Your task to perform on an android device: change text size in settings app Image 0: 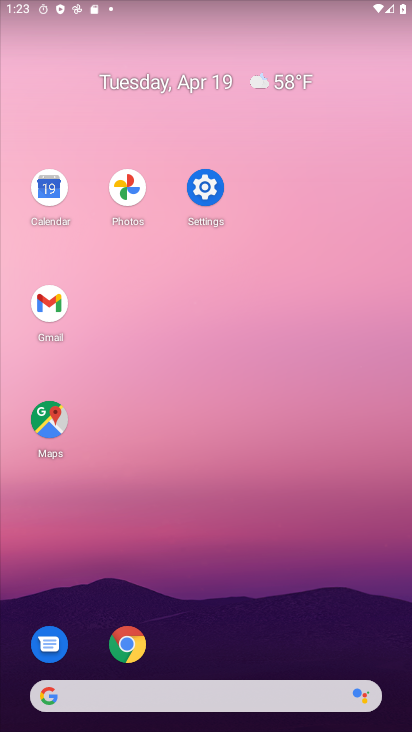
Step 0: click (200, 190)
Your task to perform on an android device: change text size in settings app Image 1: 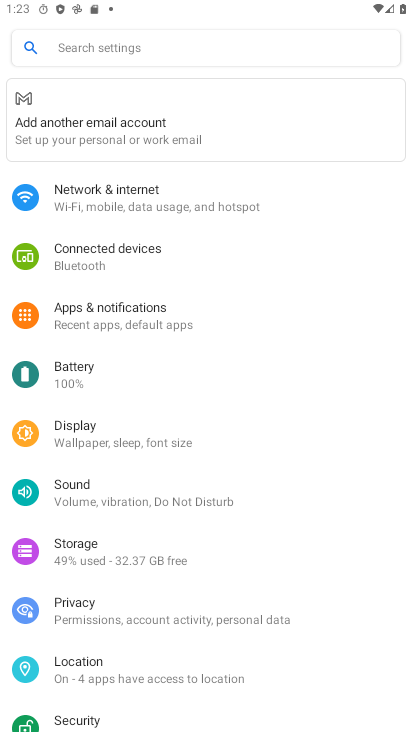
Step 1: click (123, 440)
Your task to perform on an android device: change text size in settings app Image 2: 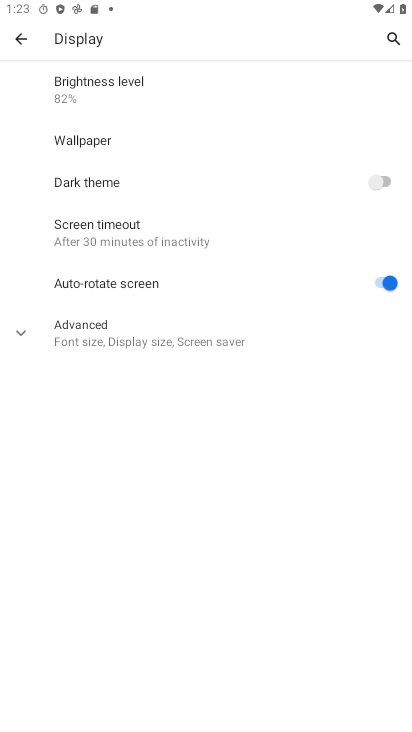
Step 2: click (101, 346)
Your task to perform on an android device: change text size in settings app Image 3: 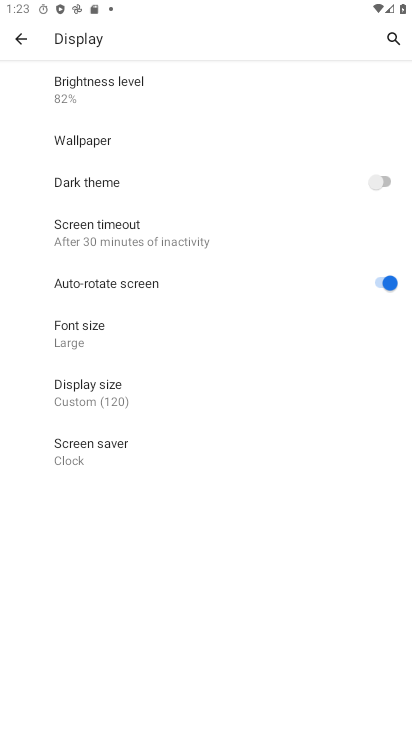
Step 3: click (145, 333)
Your task to perform on an android device: change text size in settings app Image 4: 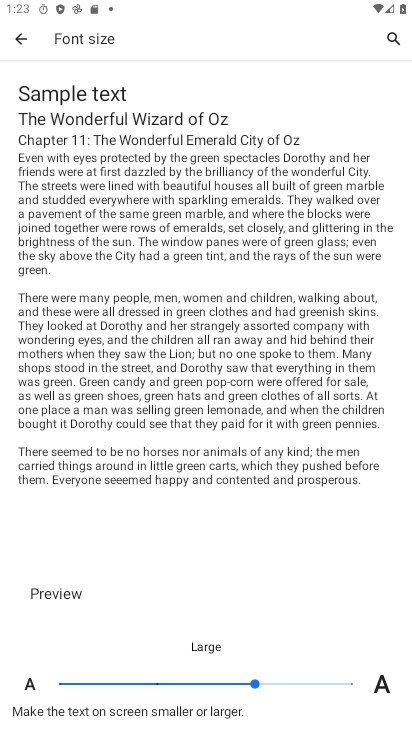
Step 4: click (154, 683)
Your task to perform on an android device: change text size in settings app Image 5: 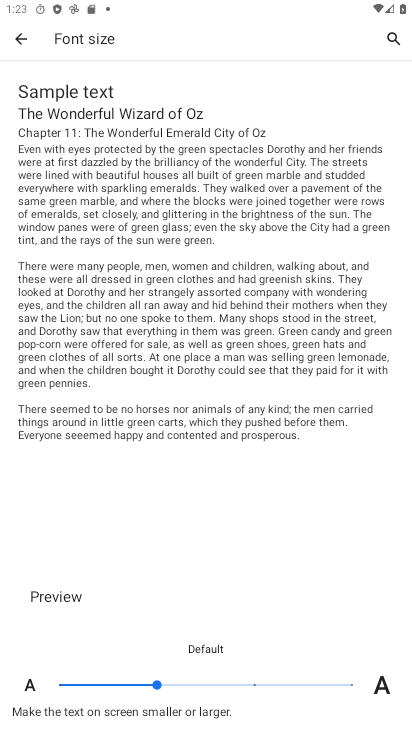
Step 5: task complete